Your task to perform on an android device: Open wifi settings Image 0: 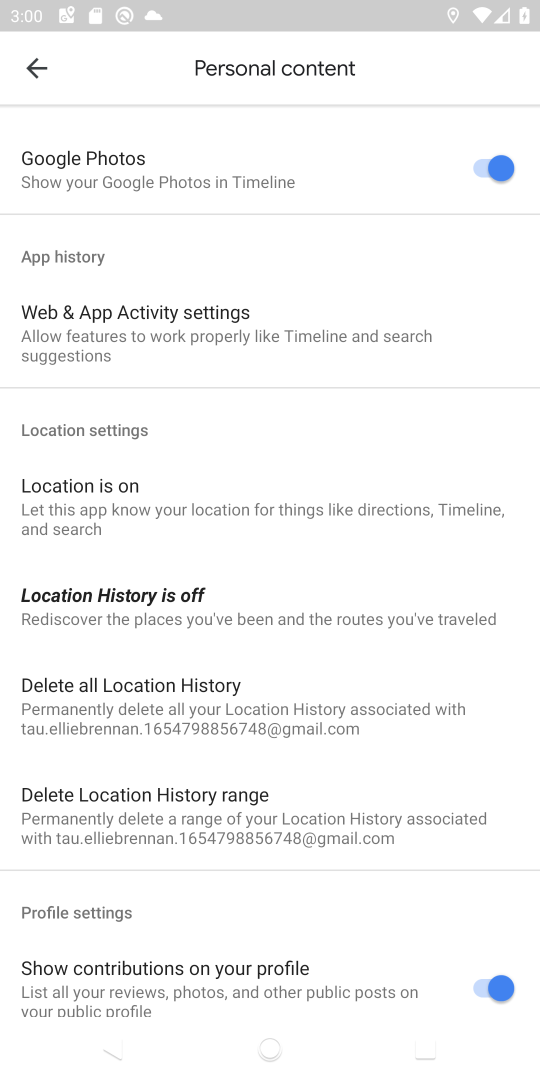
Step 0: press home button
Your task to perform on an android device: Open wifi settings Image 1: 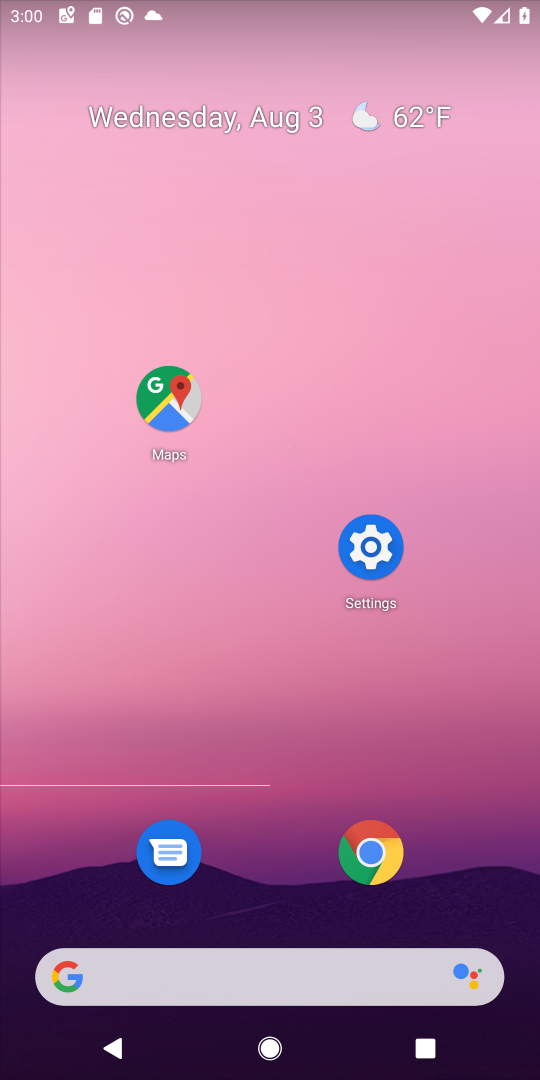
Step 1: click (369, 553)
Your task to perform on an android device: Open wifi settings Image 2: 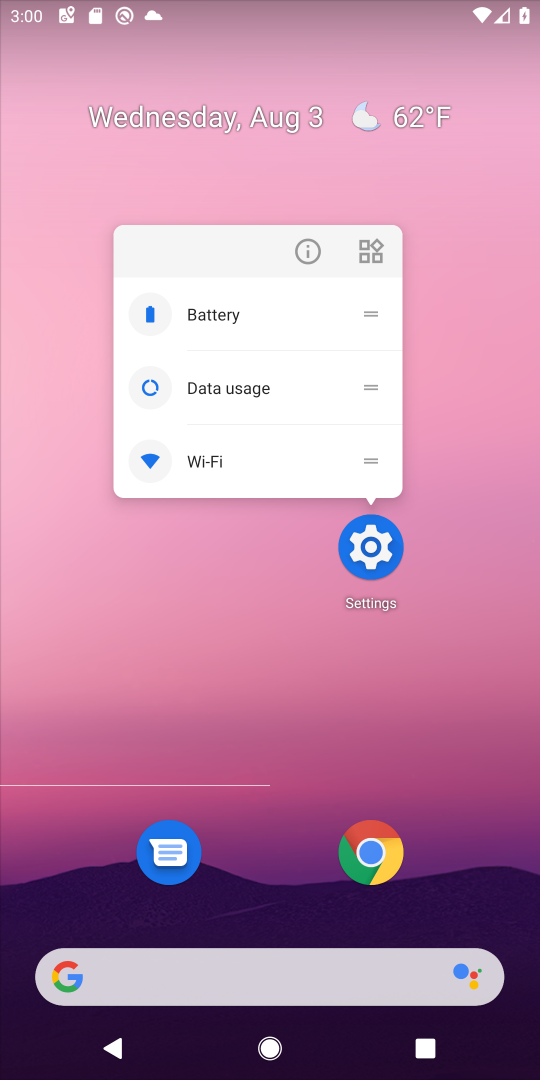
Step 2: click (369, 555)
Your task to perform on an android device: Open wifi settings Image 3: 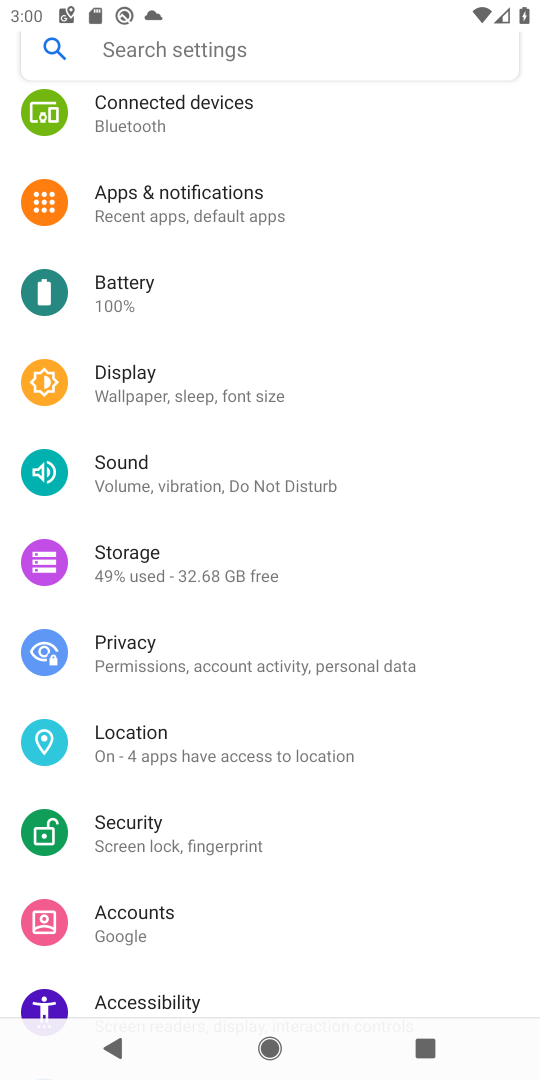
Step 3: drag from (388, 178) to (333, 860)
Your task to perform on an android device: Open wifi settings Image 4: 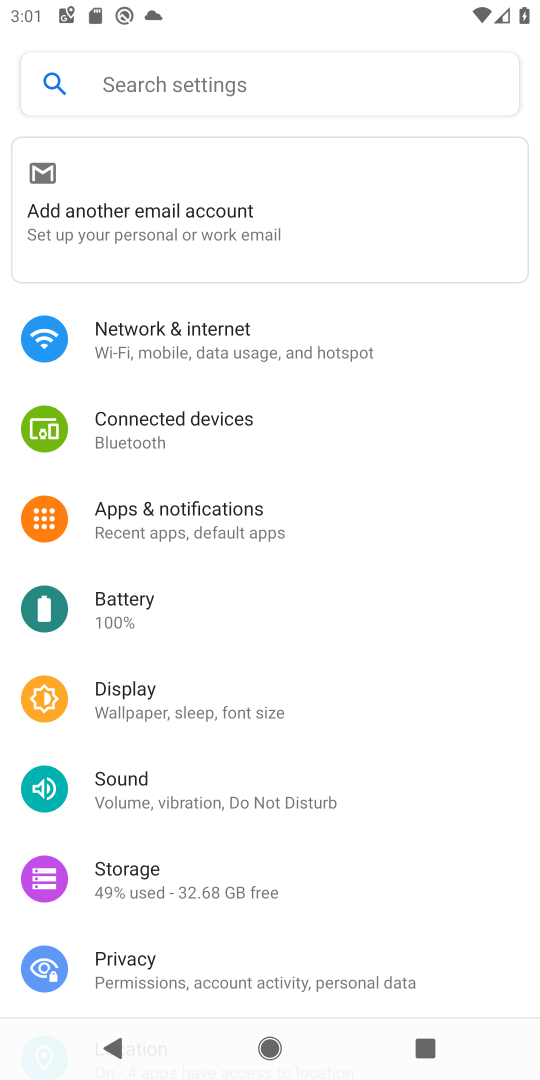
Step 4: click (210, 340)
Your task to perform on an android device: Open wifi settings Image 5: 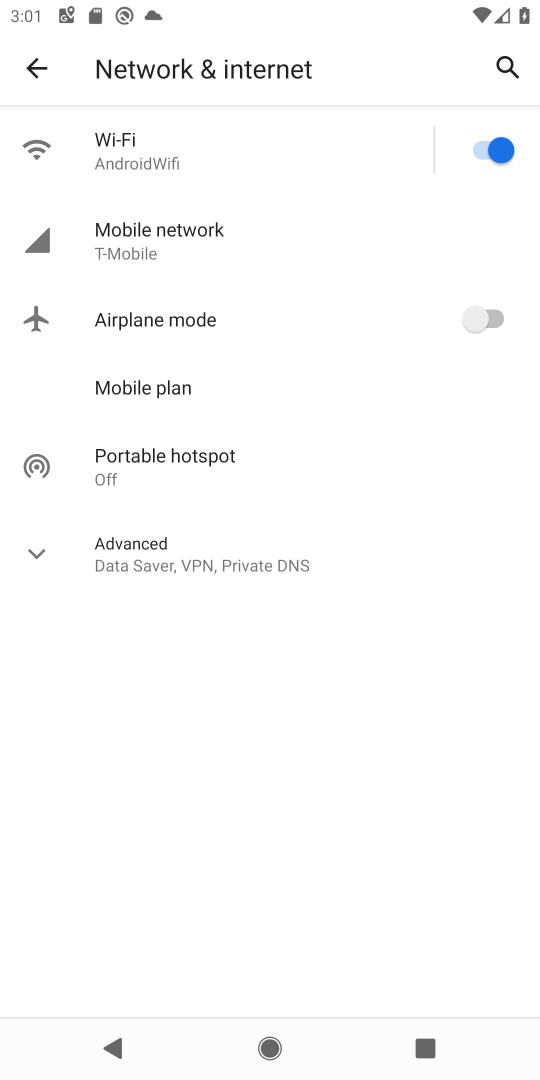
Step 5: click (139, 154)
Your task to perform on an android device: Open wifi settings Image 6: 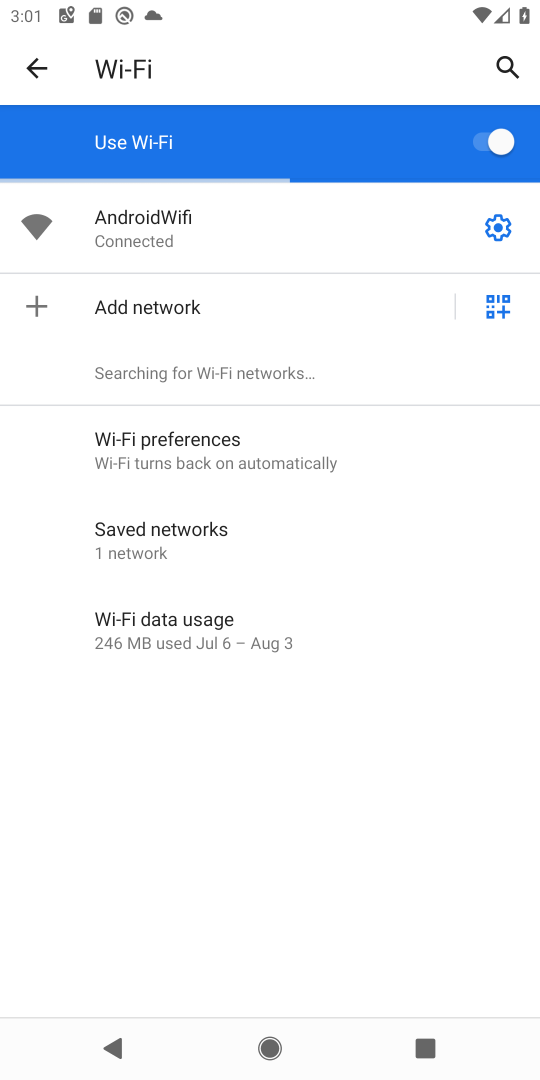
Step 6: task complete